Your task to perform on an android device: turn on notifications settings in the gmail app Image 0: 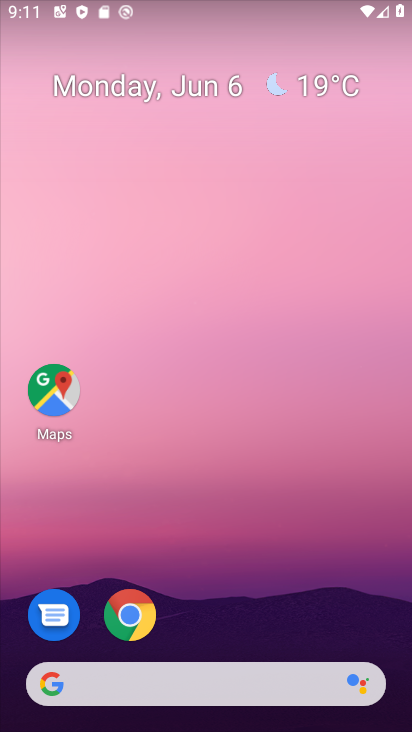
Step 0: drag from (213, 644) to (133, 92)
Your task to perform on an android device: turn on notifications settings in the gmail app Image 1: 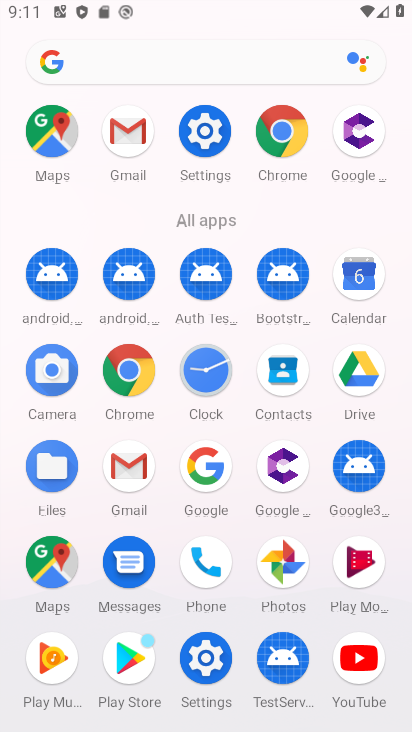
Step 1: click (118, 442)
Your task to perform on an android device: turn on notifications settings in the gmail app Image 2: 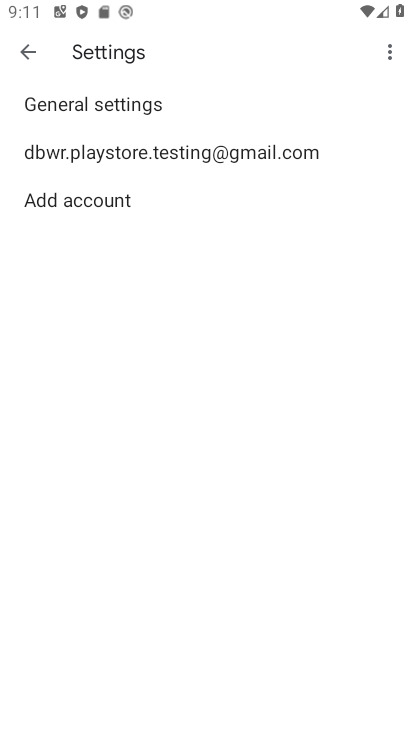
Step 2: click (92, 100)
Your task to perform on an android device: turn on notifications settings in the gmail app Image 3: 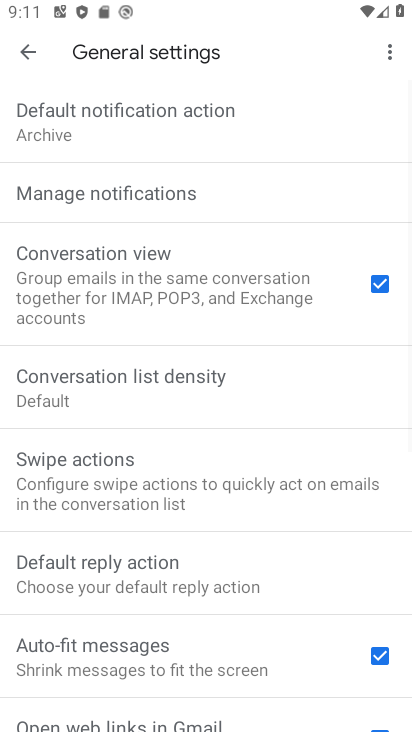
Step 3: click (83, 191)
Your task to perform on an android device: turn on notifications settings in the gmail app Image 4: 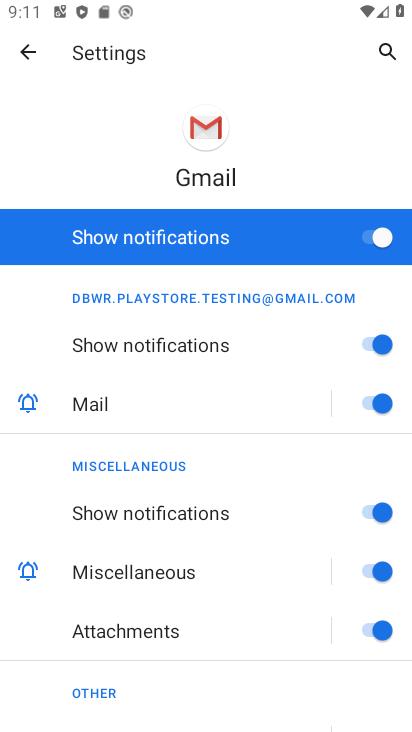
Step 4: task complete